Your task to perform on an android device: Search for sushi restaurants on Maps Image 0: 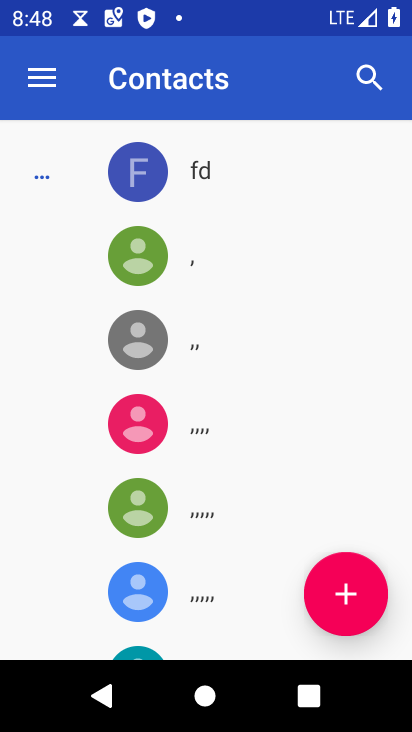
Step 0: press home button
Your task to perform on an android device: Search for sushi restaurants on Maps Image 1: 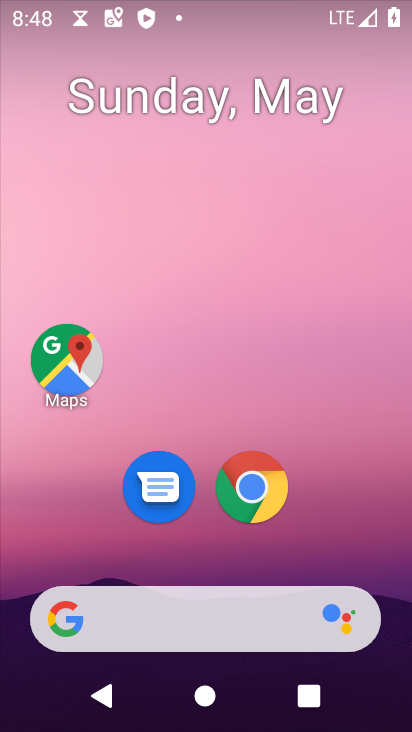
Step 1: drag from (326, 466) to (284, 0)
Your task to perform on an android device: Search for sushi restaurants on Maps Image 2: 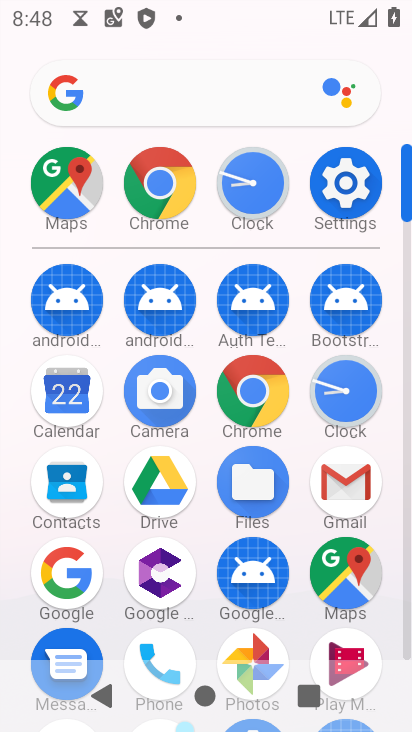
Step 2: click (355, 577)
Your task to perform on an android device: Search for sushi restaurants on Maps Image 3: 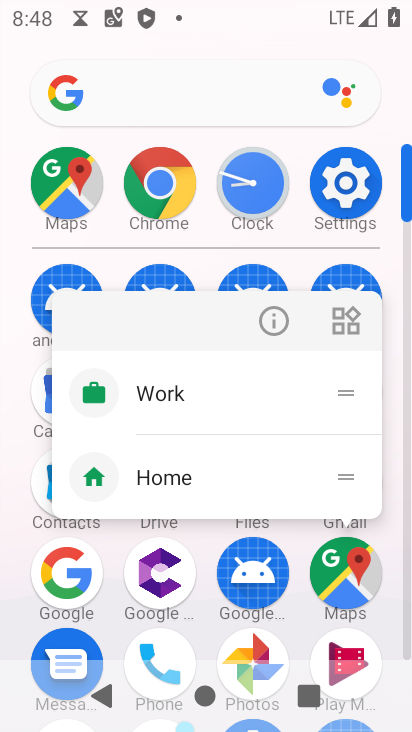
Step 3: click (355, 577)
Your task to perform on an android device: Search for sushi restaurants on Maps Image 4: 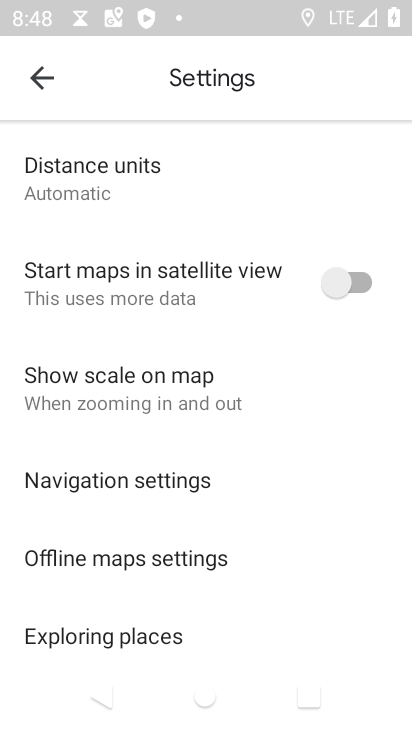
Step 4: press home button
Your task to perform on an android device: Search for sushi restaurants on Maps Image 5: 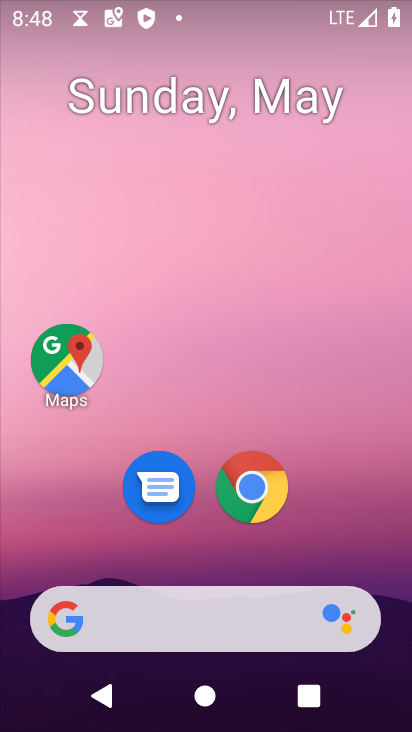
Step 5: drag from (314, 496) to (291, 35)
Your task to perform on an android device: Search for sushi restaurants on Maps Image 6: 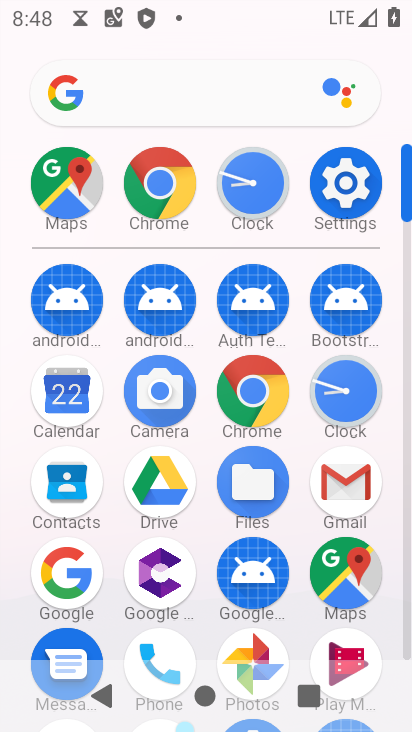
Step 6: click (321, 589)
Your task to perform on an android device: Search for sushi restaurants on Maps Image 7: 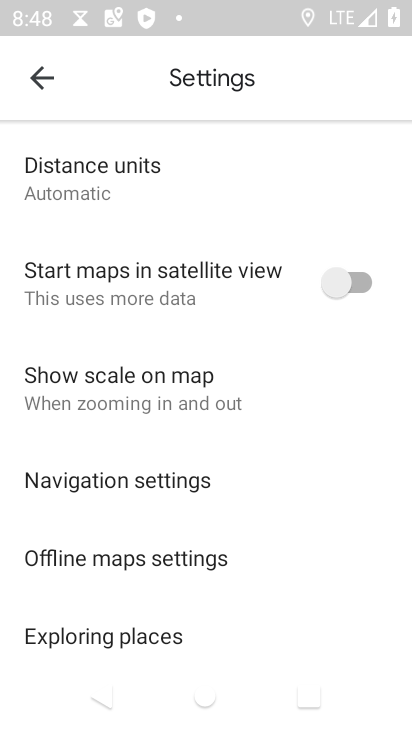
Step 7: click (44, 66)
Your task to perform on an android device: Search for sushi restaurants on Maps Image 8: 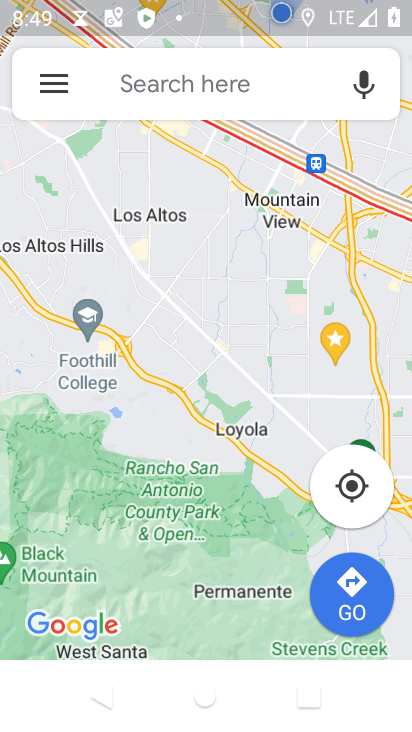
Step 8: click (177, 94)
Your task to perform on an android device: Search for sushi restaurants on Maps Image 9: 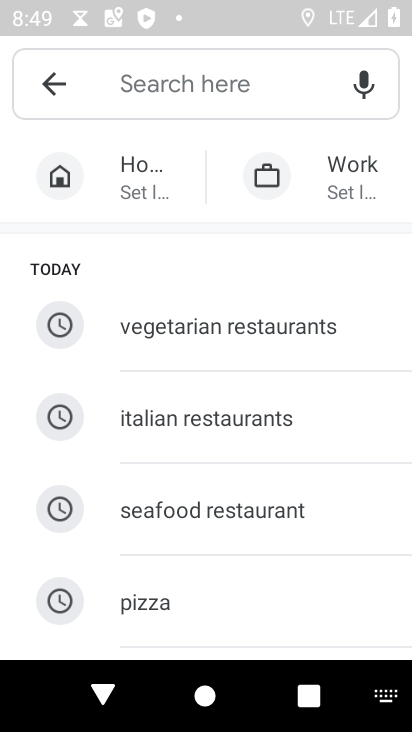
Step 9: drag from (256, 615) to (195, 266)
Your task to perform on an android device: Search for sushi restaurants on Maps Image 10: 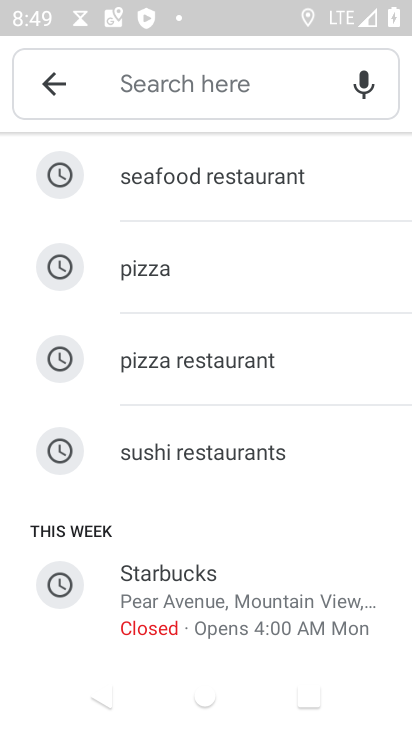
Step 10: drag from (225, 536) to (257, 214)
Your task to perform on an android device: Search for sushi restaurants on Maps Image 11: 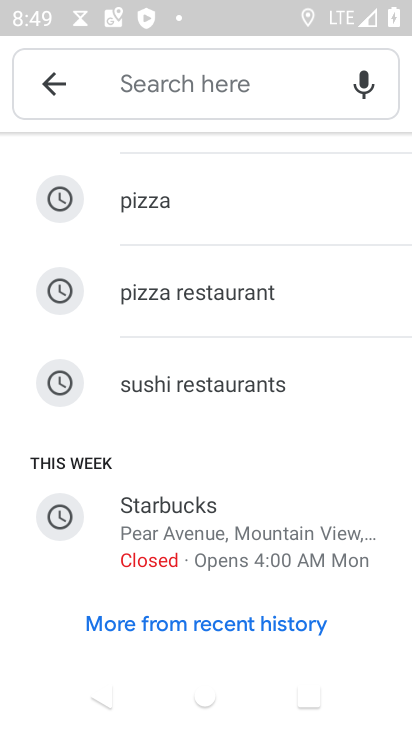
Step 11: drag from (265, 234) to (271, 563)
Your task to perform on an android device: Search for sushi restaurants on Maps Image 12: 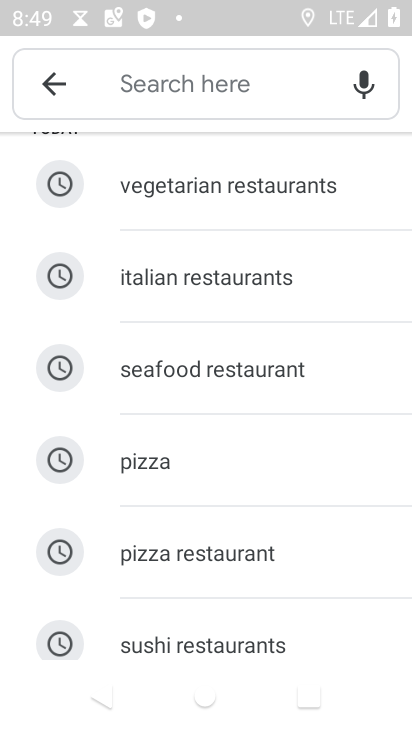
Step 12: click (230, 638)
Your task to perform on an android device: Search for sushi restaurants on Maps Image 13: 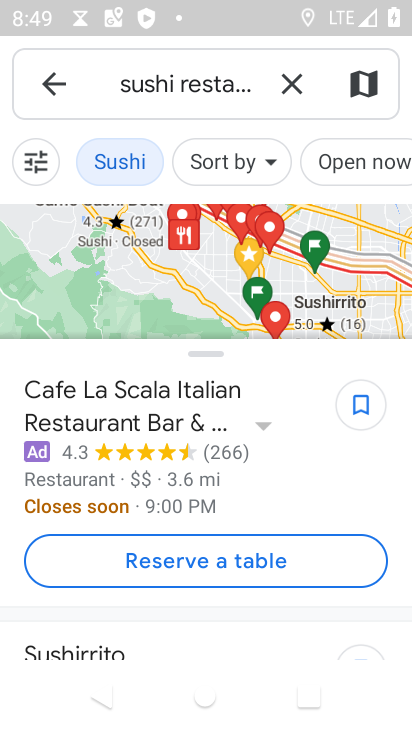
Step 13: task complete